Your task to perform on an android device: Go to Google maps Image 0: 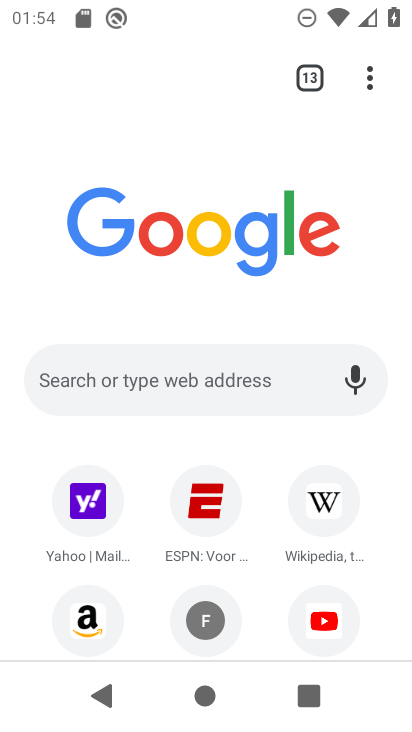
Step 0: press home button
Your task to perform on an android device: Go to Google maps Image 1: 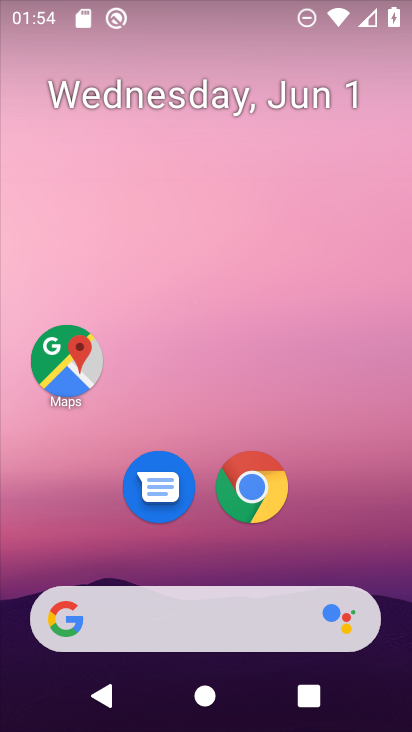
Step 1: click (66, 337)
Your task to perform on an android device: Go to Google maps Image 2: 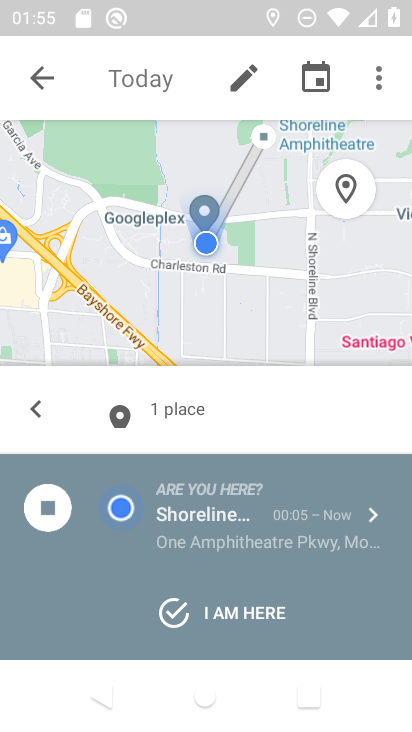
Step 2: task complete